Your task to perform on an android device: Show me popular games on the Play Store Image 0: 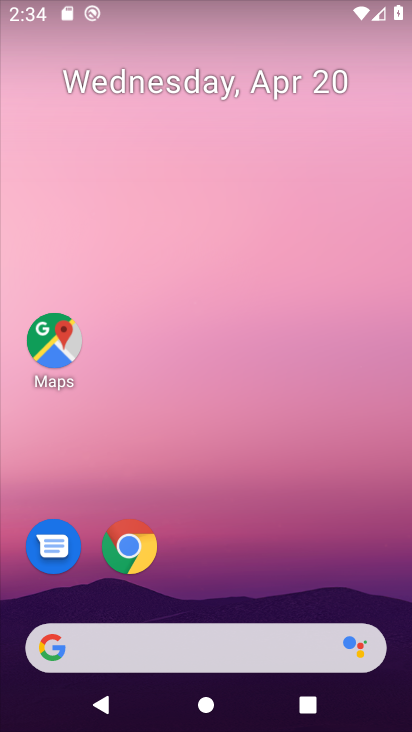
Step 0: drag from (147, 614) to (283, 52)
Your task to perform on an android device: Show me popular games on the Play Store Image 1: 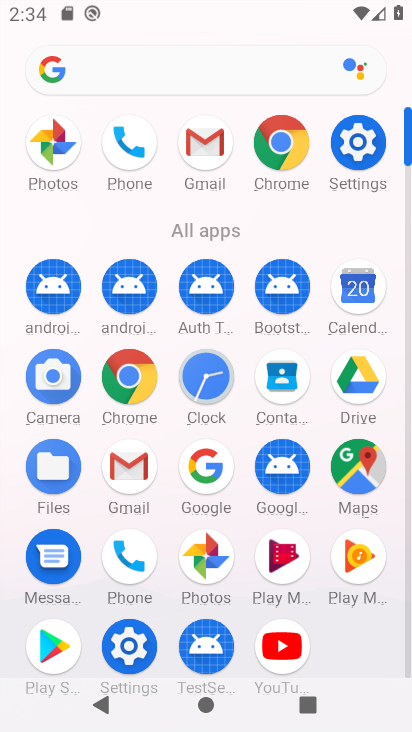
Step 1: click (43, 661)
Your task to perform on an android device: Show me popular games on the Play Store Image 2: 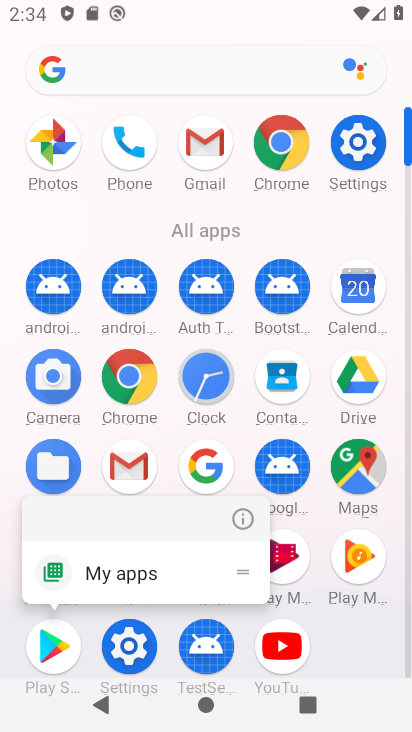
Step 2: click (48, 645)
Your task to perform on an android device: Show me popular games on the Play Store Image 3: 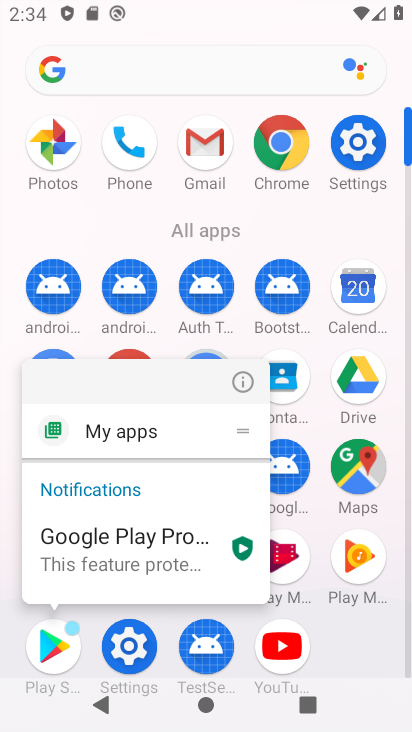
Step 3: click (64, 648)
Your task to perform on an android device: Show me popular games on the Play Store Image 4: 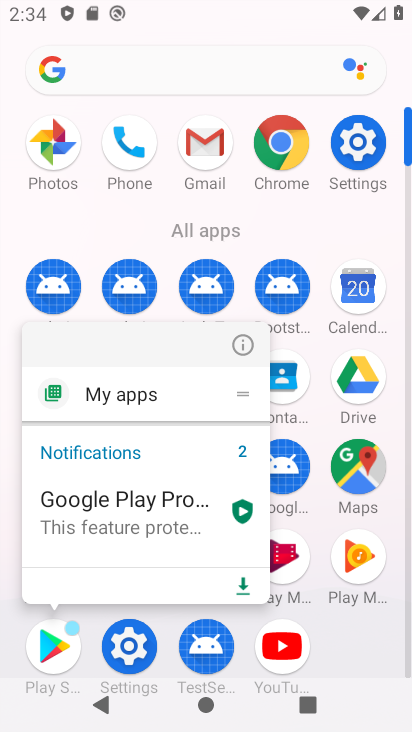
Step 4: click (65, 636)
Your task to perform on an android device: Show me popular games on the Play Store Image 5: 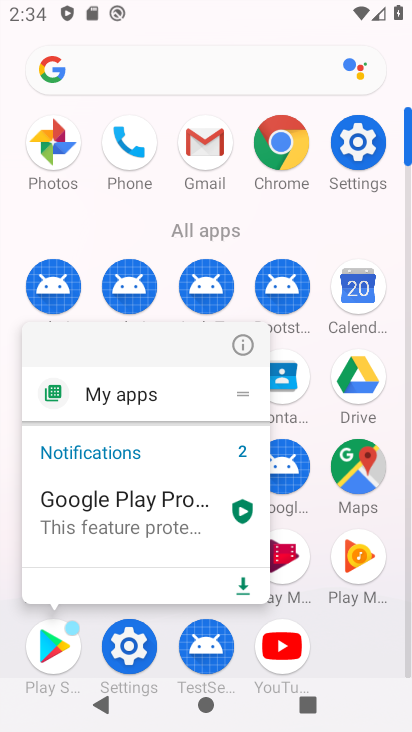
Step 5: click (62, 644)
Your task to perform on an android device: Show me popular games on the Play Store Image 6: 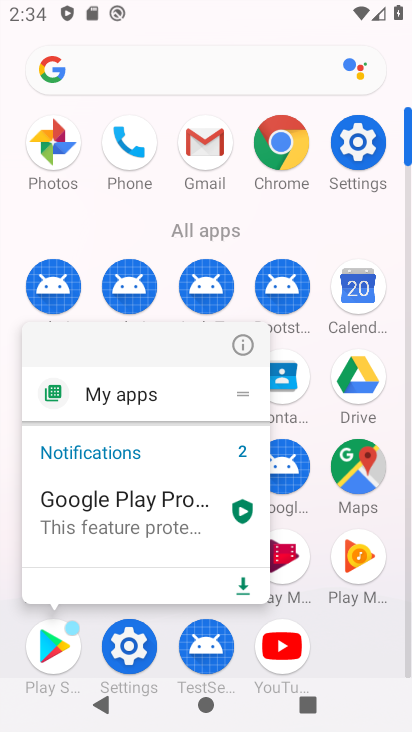
Step 6: click (68, 634)
Your task to perform on an android device: Show me popular games on the Play Store Image 7: 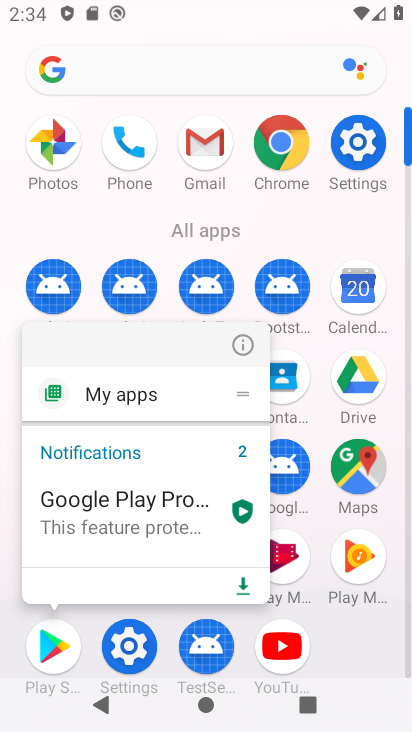
Step 7: click (59, 648)
Your task to perform on an android device: Show me popular games on the Play Store Image 8: 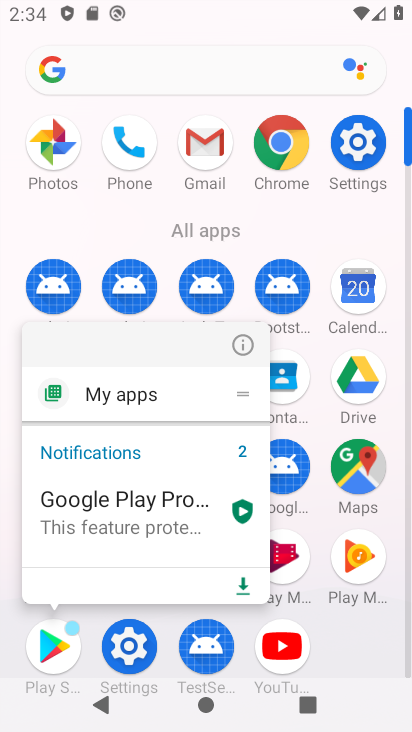
Step 8: click (59, 648)
Your task to perform on an android device: Show me popular games on the Play Store Image 9: 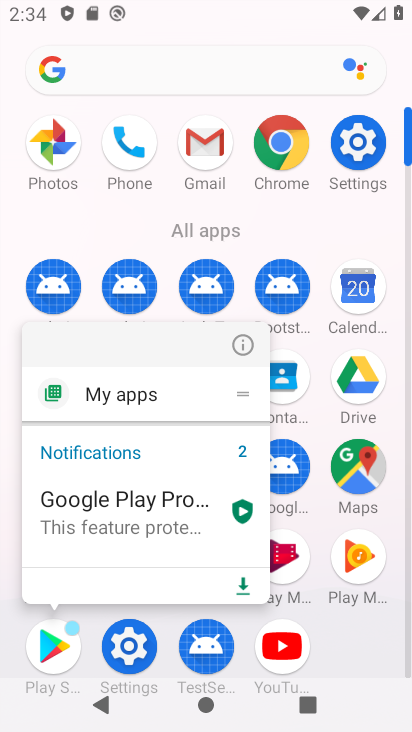
Step 9: click (59, 649)
Your task to perform on an android device: Show me popular games on the Play Store Image 10: 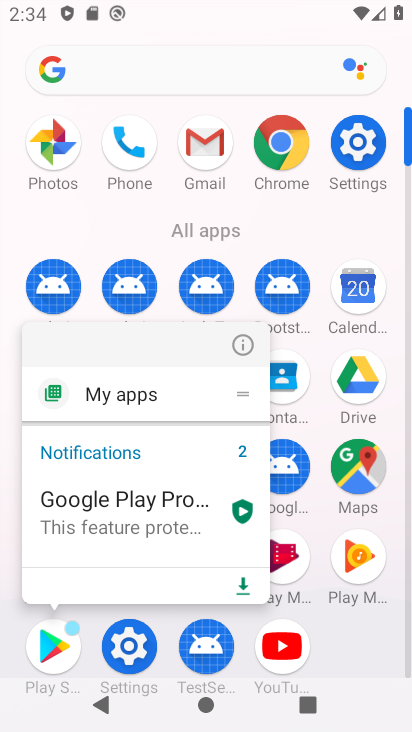
Step 10: click (59, 649)
Your task to perform on an android device: Show me popular games on the Play Store Image 11: 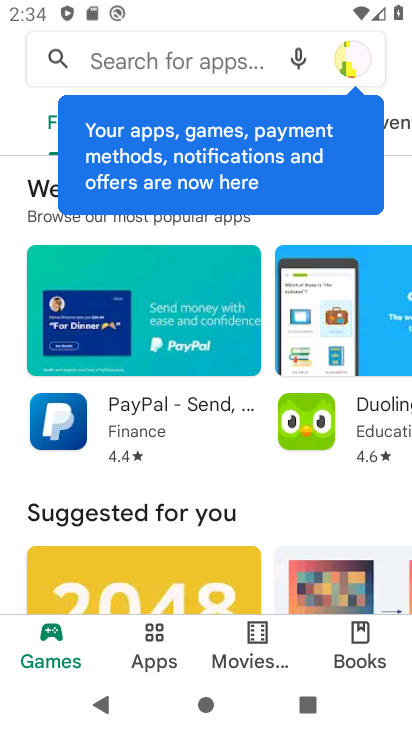
Step 11: drag from (139, 591) to (208, 417)
Your task to perform on an android device: Show me popular games on the Play Store Image 12: 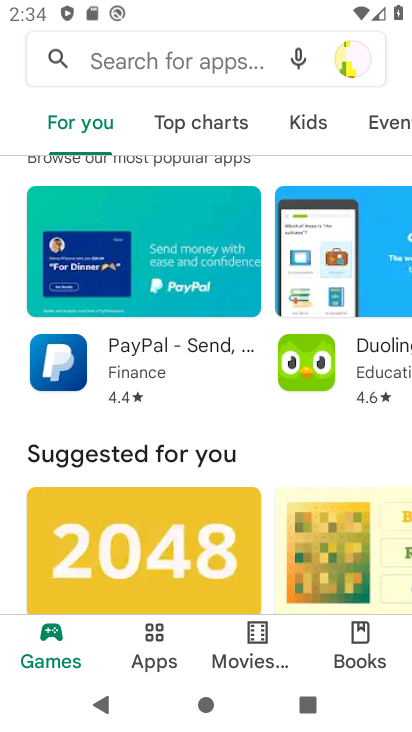
Step 12: drag from (163, 586) to (329, 147)
Your task to perform on an android device: Show me popular games on the Play Store Image 13: 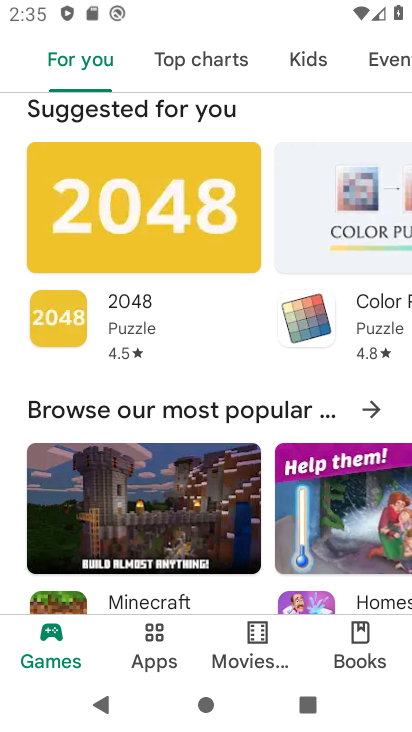
Step 13: click (364, 408)
Your task to perform on an android device: Show me popular games on the Play Store Image 14: 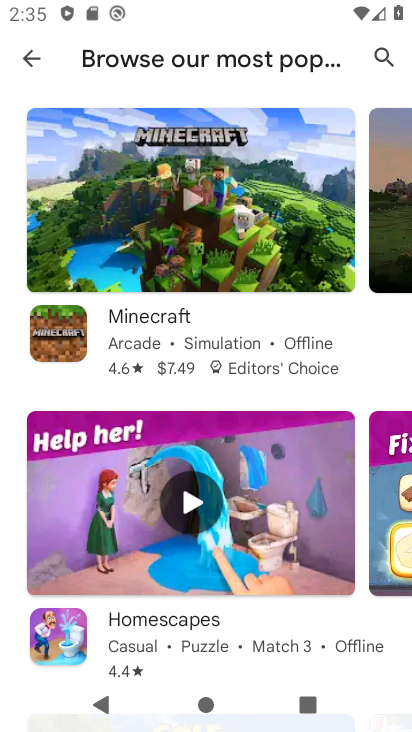
Step 14: task complete